Your task to perform on an android device: read, delete, or share a saved page in the chrome app Image 0: 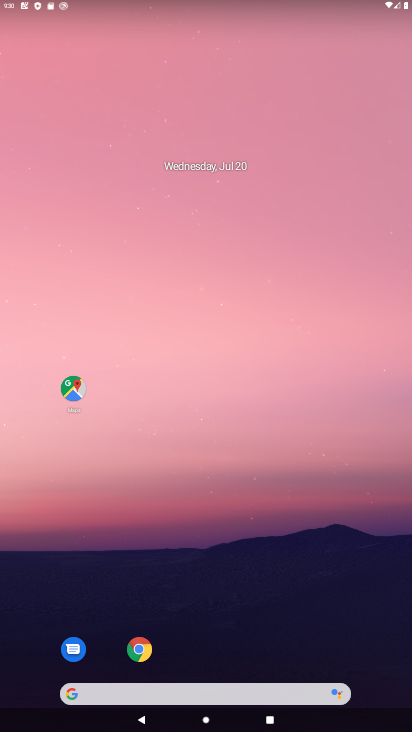
Step 0: drag from (205, 664) to (282, 177)
Your task to perform on an android device: read, delete, or share a saved page in the chrome app Image 1: 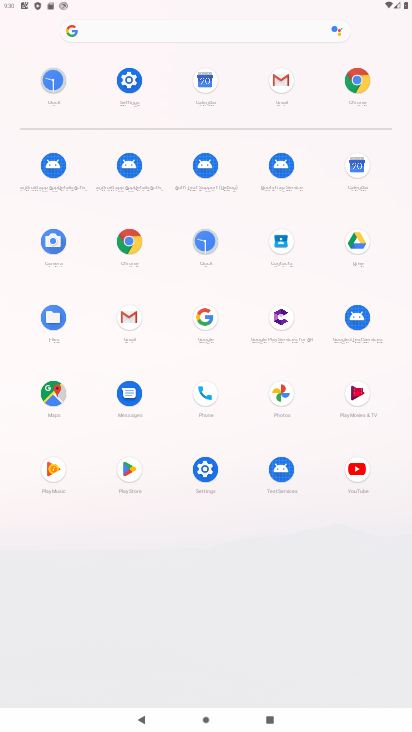
Step 1: click (363, 100)
Your task to perform on an android device: read, delete, or share a saved page in the chrome app Image 2: 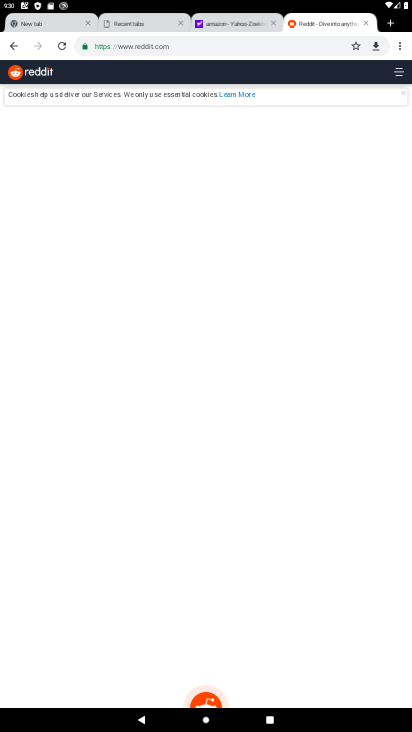
Step 2: click (396, 47)
Your task to perform on an android device: read, delete, or share a saved page in the chrome app Image 3: 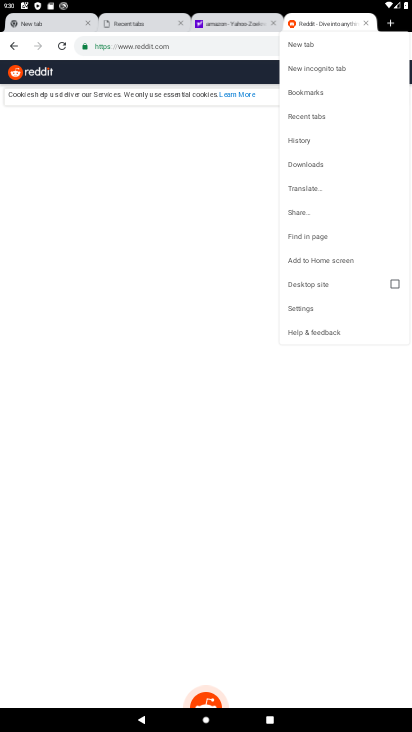
Step 3: click (319, 304)
Your task to perform on an android device: read, delete, or share a saved page in the chrome app Image 4: 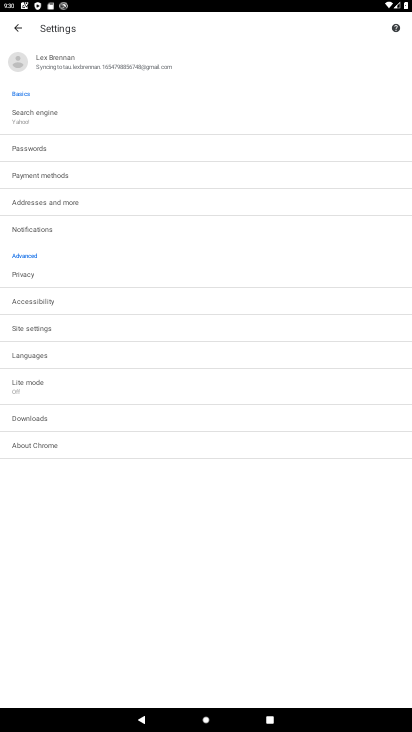
Step 4: task complete